Your task to perform on an android device: turn on wifi Image 0: 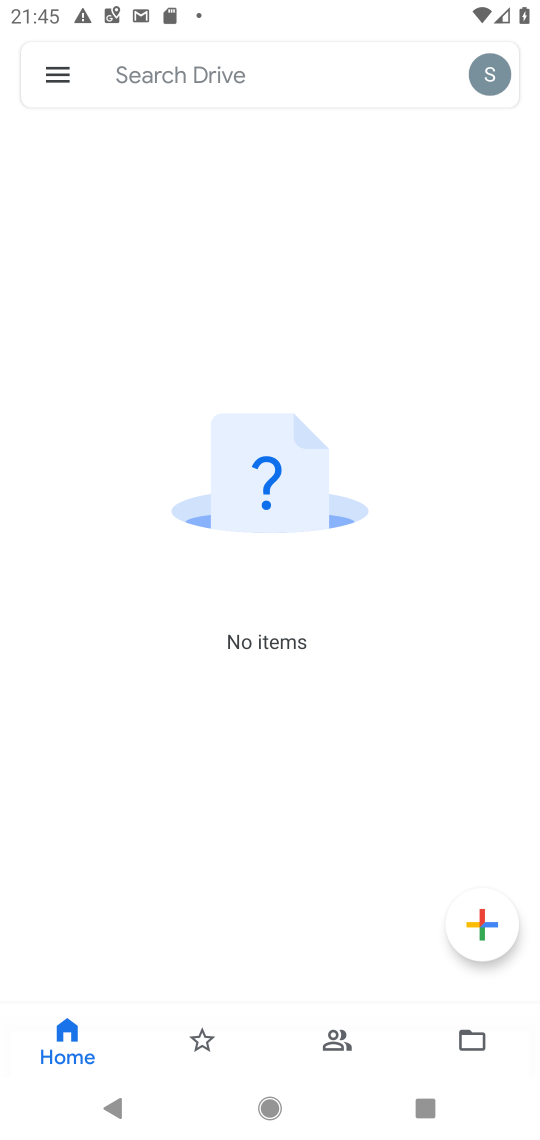
Step 0: press home button
Your task to perform on an android device: turn on wifi Image 1: 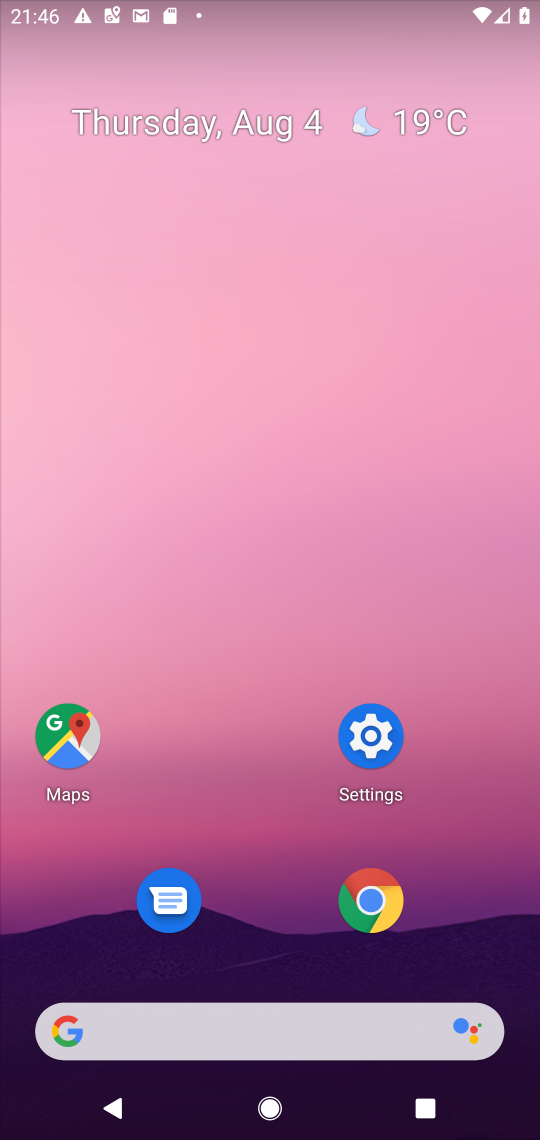
Step 1: click (373, 732)
Your task to perform on an android device: turn on wifi Image 2: 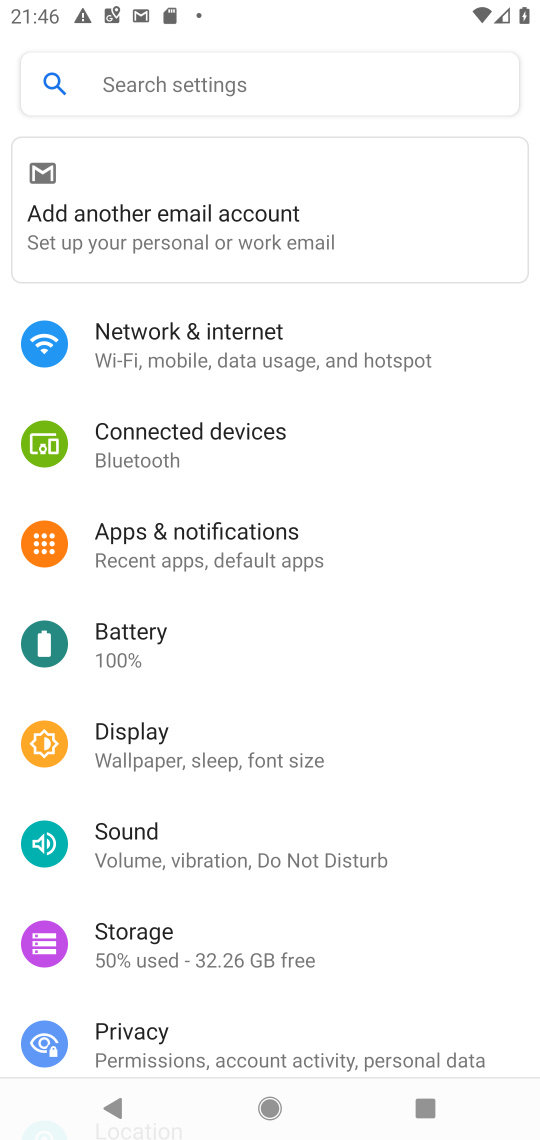
Step 2: click (240, 357)
Your task to perform on an android device: turn on wifi Image 3: 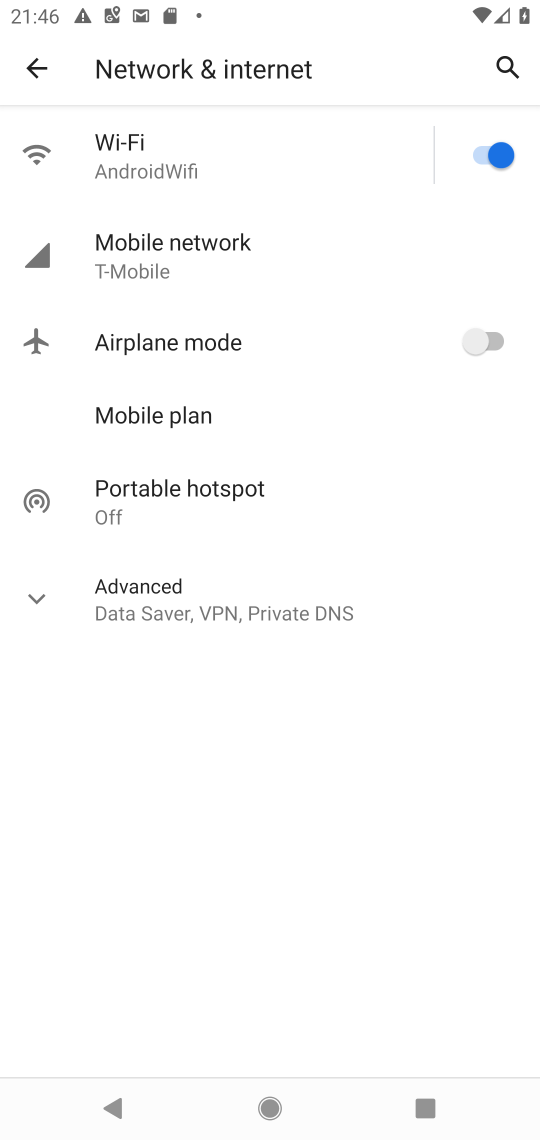
Step 3: task complete